Your task to perform on an android device: read, delete, or share a saved page in the chrome app Image 0: 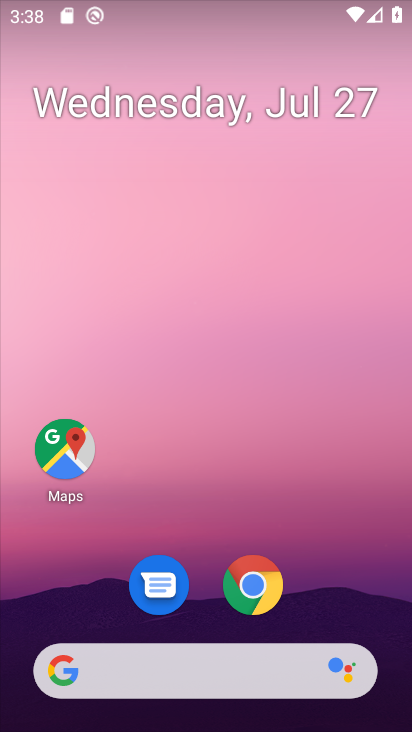
Step 0: click (255, 579)
Your task to perform on an android device: read, delete, or share a saved page in the chrome app Image 1: 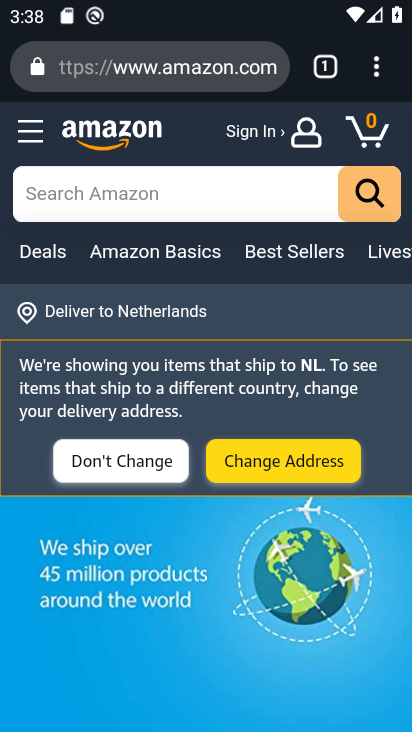
Step 1: click (379, 71)
Your task to perform on an android device: read, delete, or share a saved page in the chrome app Image 2: 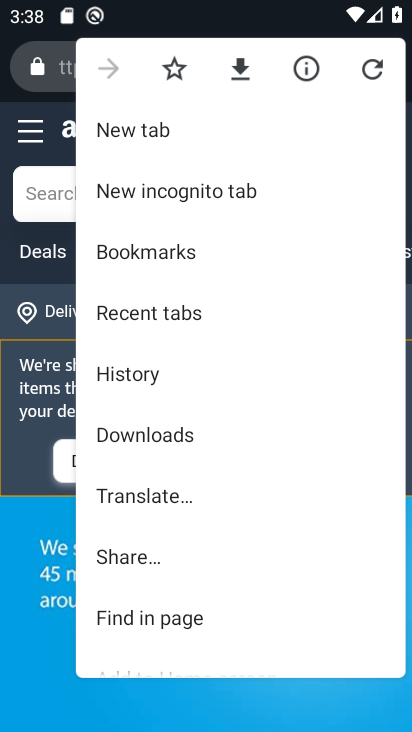
Step 2: click (172, 434)
Your task to perform on an android device: read, delete, or share a saved page in the chrome app Image 3: 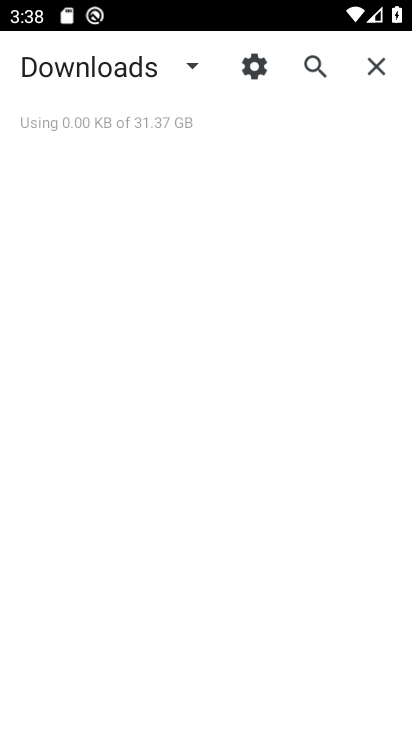
Step 3: task complete